Your task to perform on an android device: toggle airplane mode Image 0: 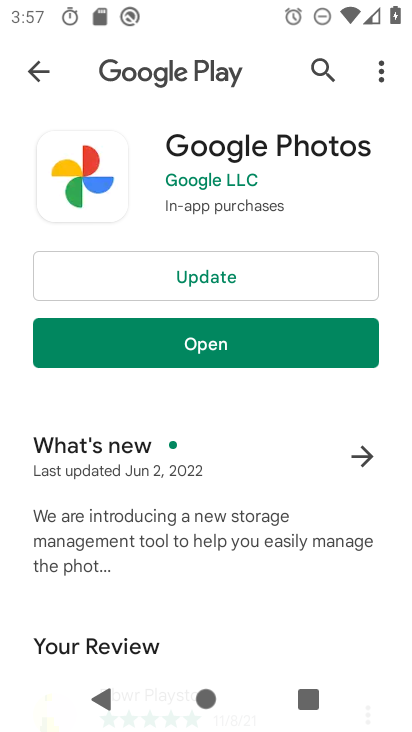
Step 0: press home button
Your task to perform on an android device: toggle airplane mode Image 1: 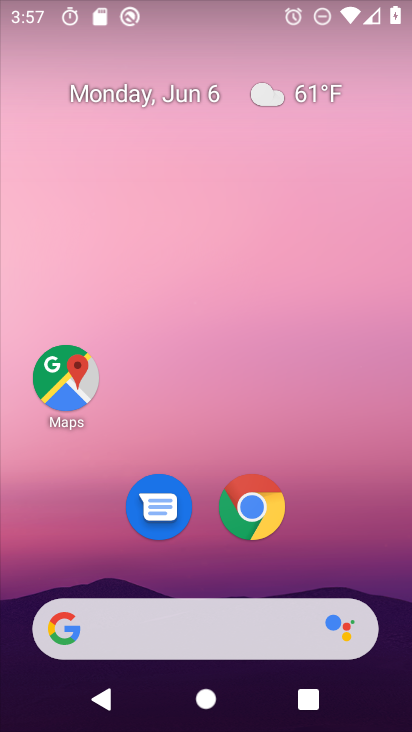
Step 1: drag from (198, 576) to (211, 220)
Your task to perform on an android device: toggle airplane mode Image 2: 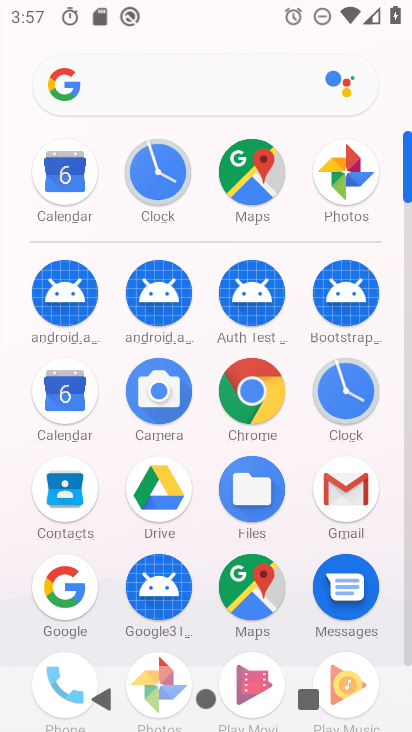
Step 2: drag from (185, 512) to (205, 165)
Your task to perform on an android device: toggle airplane mode Image 3: 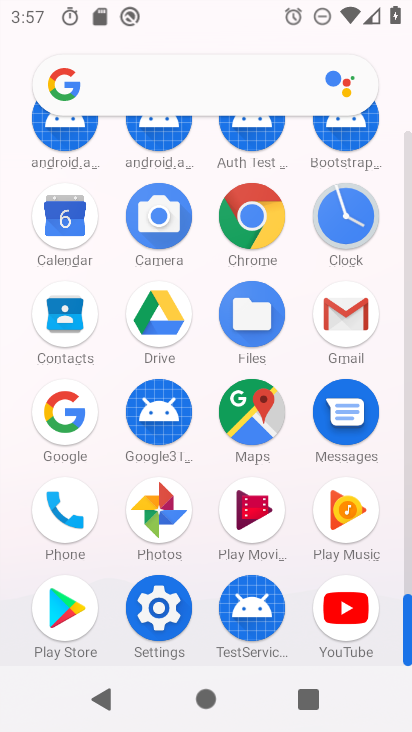
Step 3: click (164, 603)
Your task to perform on an android device: toggle airplane mode Image 4: 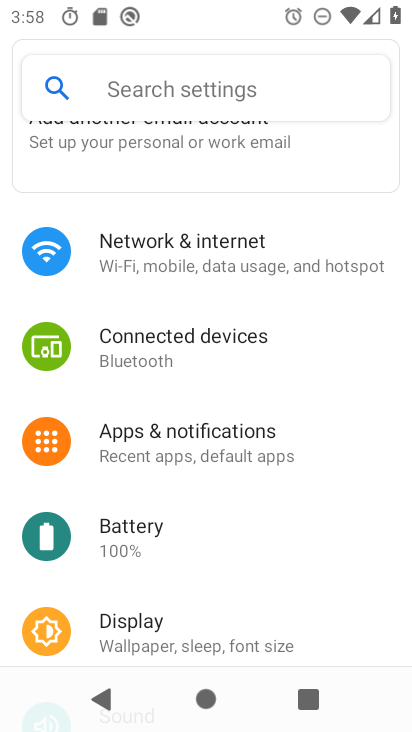
Step 4: click (145, 282)
Your task to perform on an android device: toggle airplane mode Image 5: 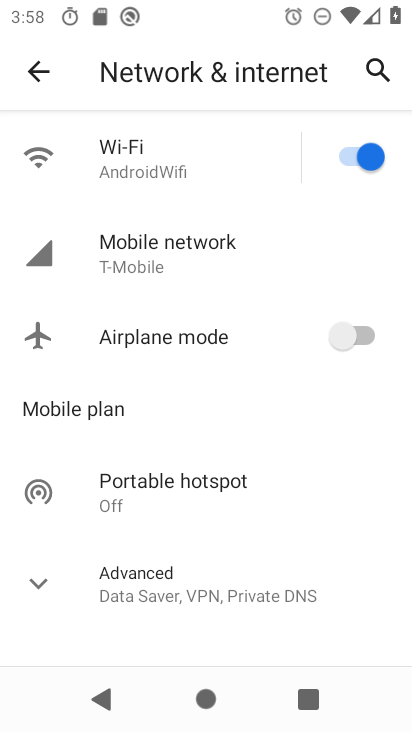
Step 5: click (376, 331)
Your task to perform on an android device: toggle airplane mode Image 6: 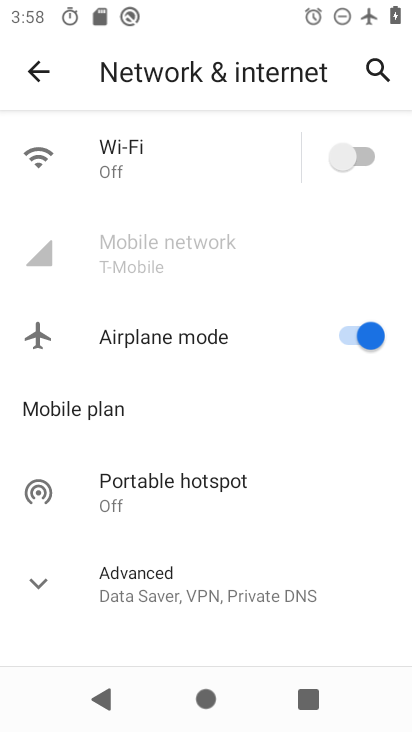
Step 6: task complete